Your task to perform on an android device: see sites visited before in the chrome app Image 0: 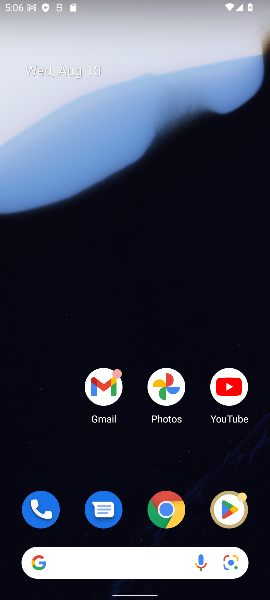
Step 0: drag from (200, 452) to (193, 125)
Your task to perform on an android device: see sites visited before in the chrome app Image 1: 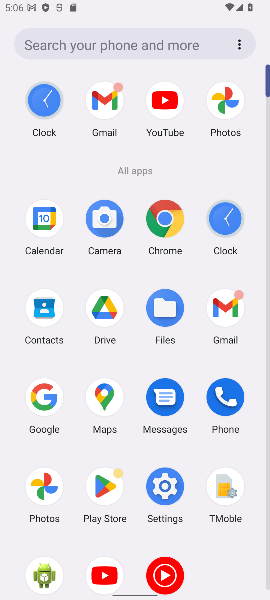
Step 1: click (171, 220)
Your task to perform on an android device: see sites visited before in the chrome app Image 2: 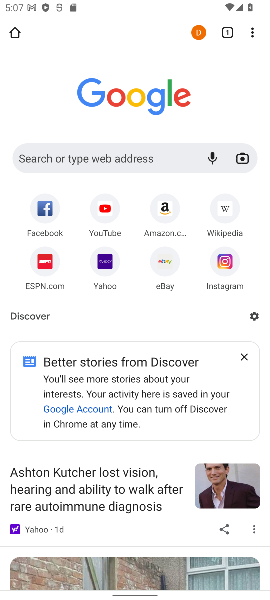
Step 2: task complete